Your task to perform on an android device: set the stopwatch Image 0: 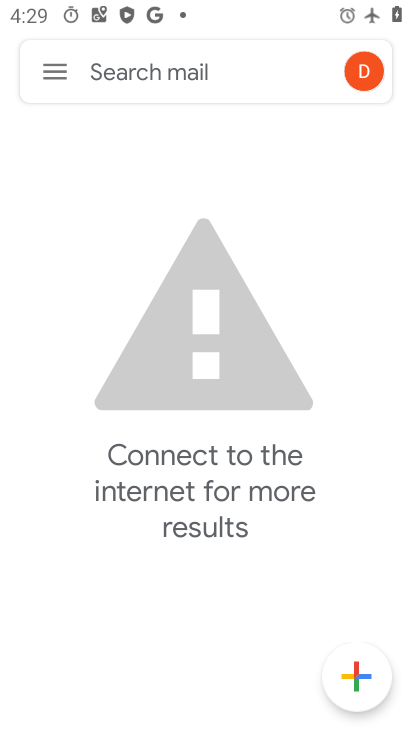
Step 0: press home button
Your task to perform on an android device: set the stopwatch Image 1: 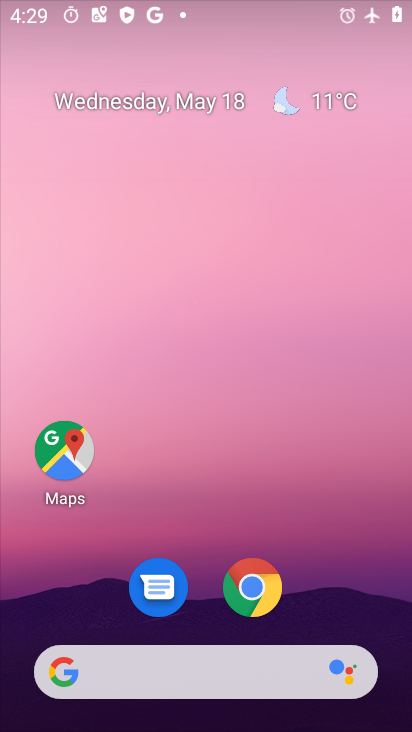
Step 1: drag from (199, 645) to (207, 290)
Your task to perform on an android device: set the stopwatch Image 2: 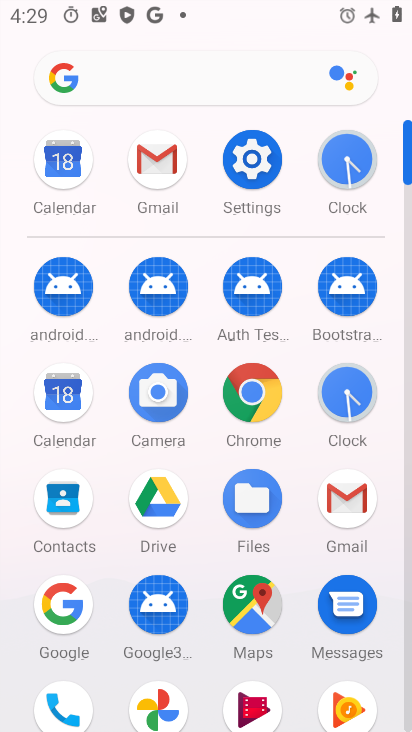
Step 2: click (359, 425)
Your task to perform on an android device: set the stopwatch Image 3: 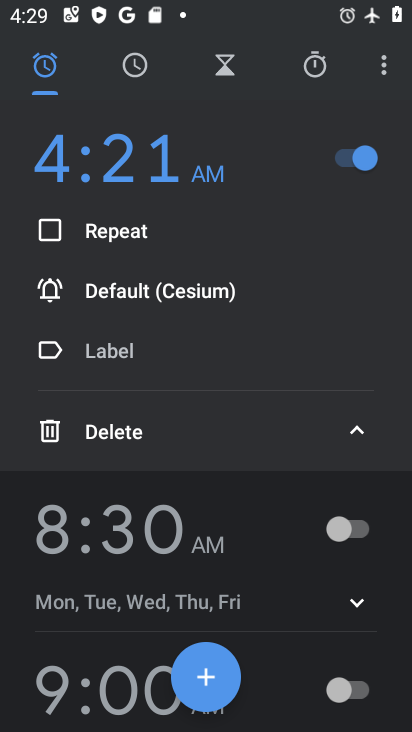
Step 3: click (320, 79)
Your task to perform on an android device: set the stopwatch Image 4: 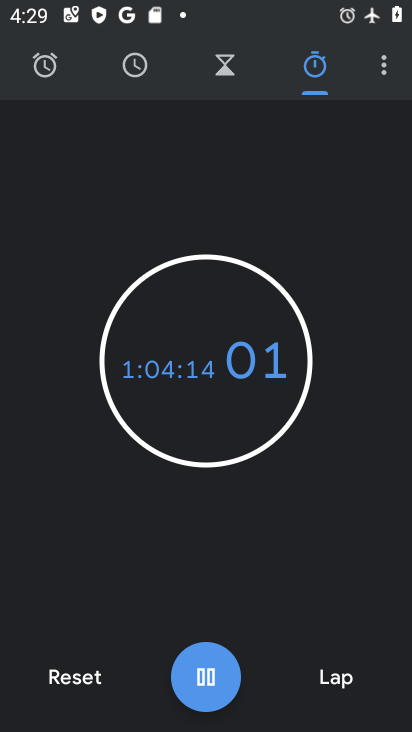
Step 4: task complete